Your task to perform on an android device: Open Google Maps Image 0: 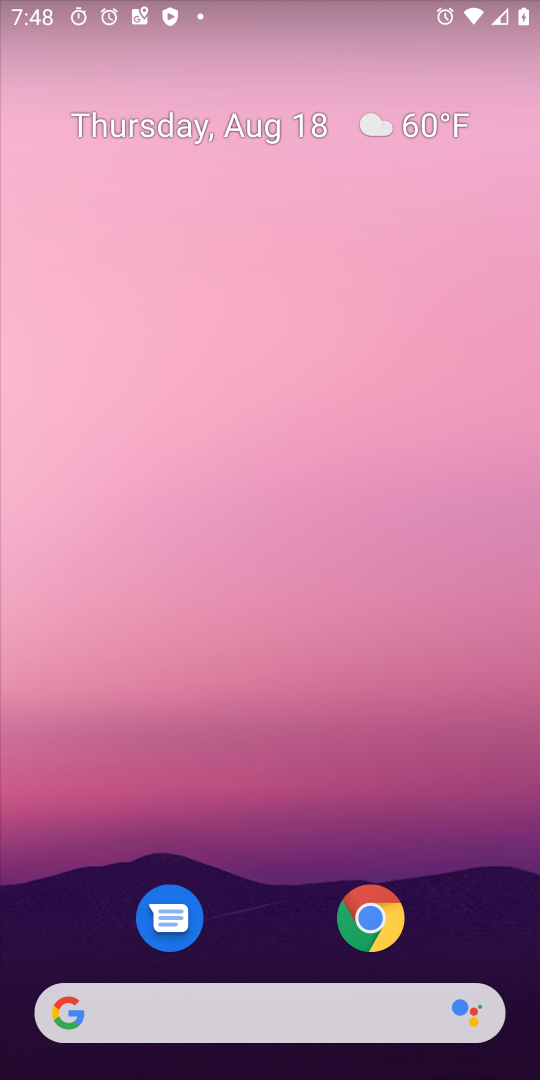
Step 0: press home button
Your task to perform on an android device: Open Google Maps Image 1: 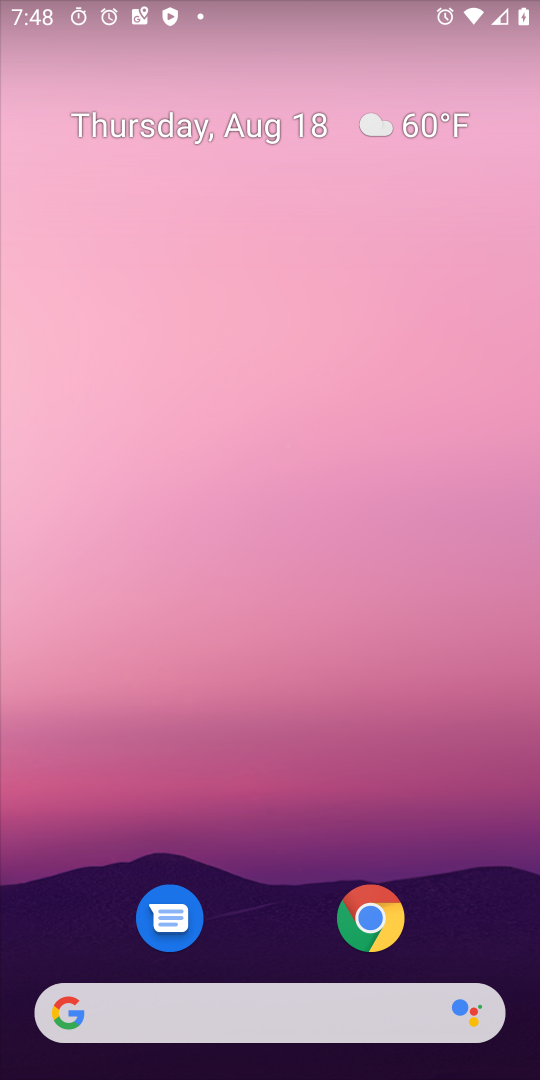
Step 1: press home button
Your task to perform on an android device: Open Google Maps Image 2: 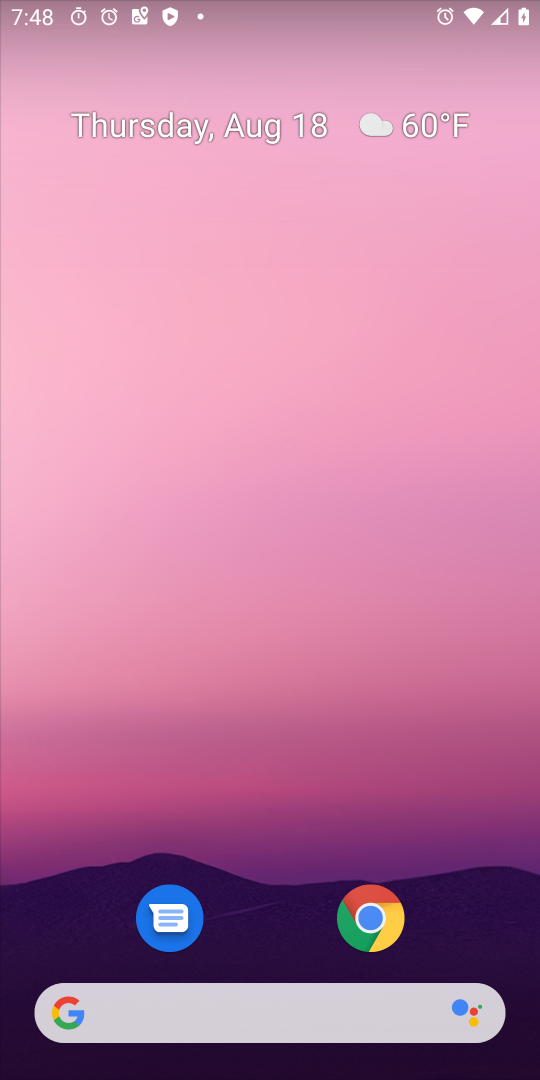
Step 2: drag from (278, 951) to (335, 2)
Your task to perform on an android device: Open Google Maps Image 3: 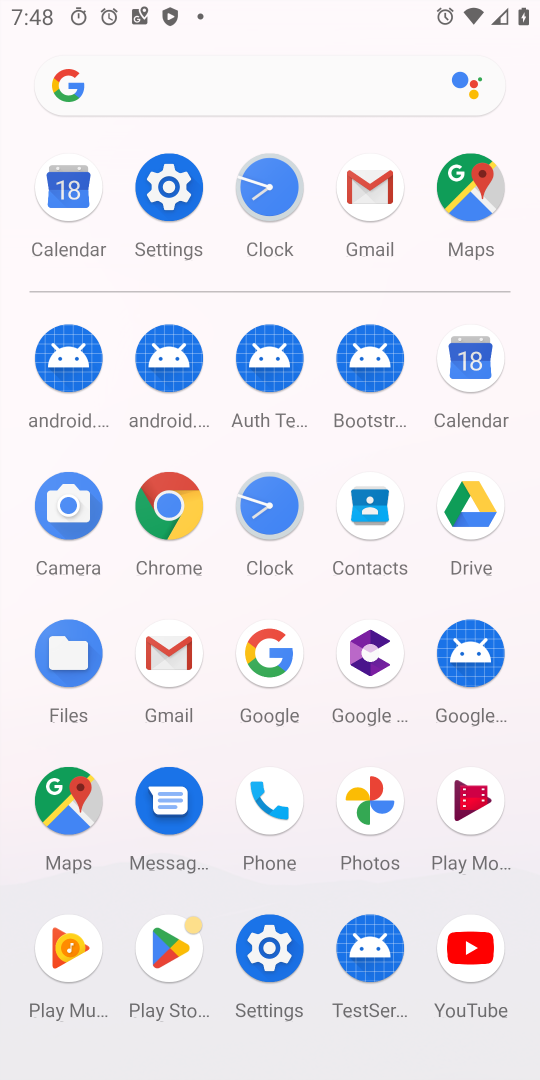
Step 3: click (461, 183)
Your task to perform on an android device: Open Google Maps Image 4: 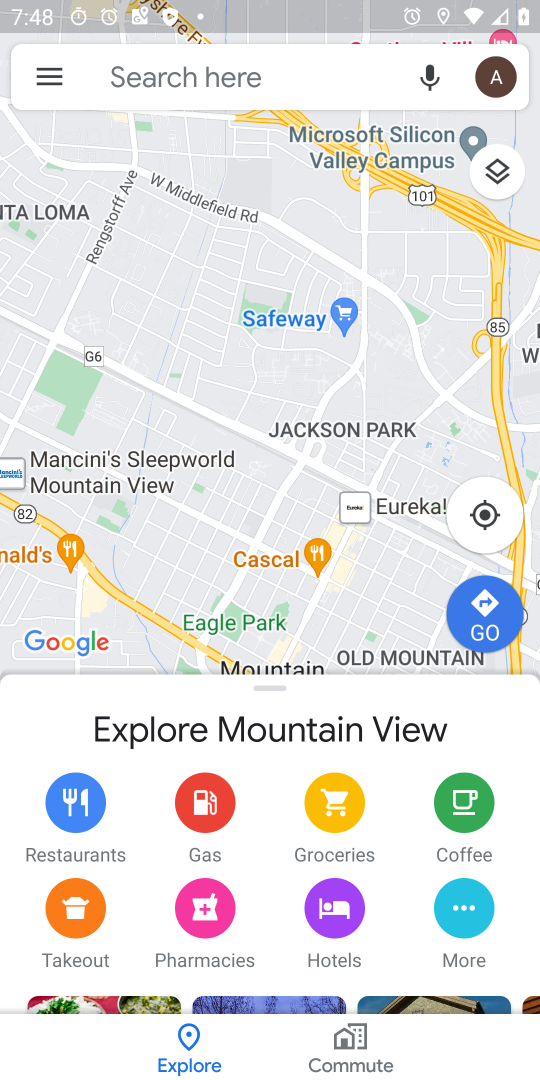
Step 4: task complete